Your task to perform on an android device: change the clock display to digital Image 0: 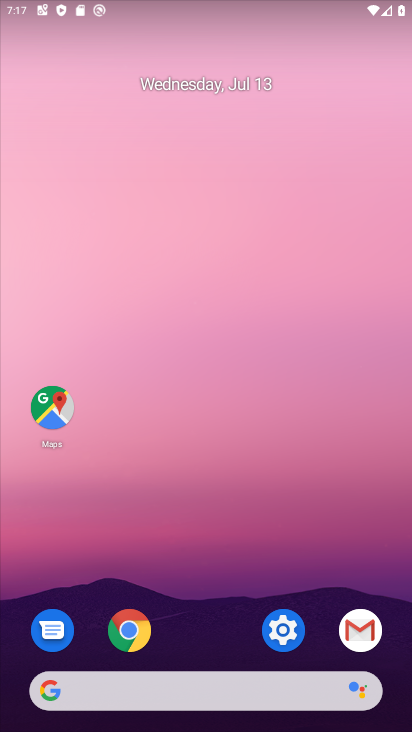
Step 0: press home button
Your task to perform on an android device: change the clock display to digital Image 1: 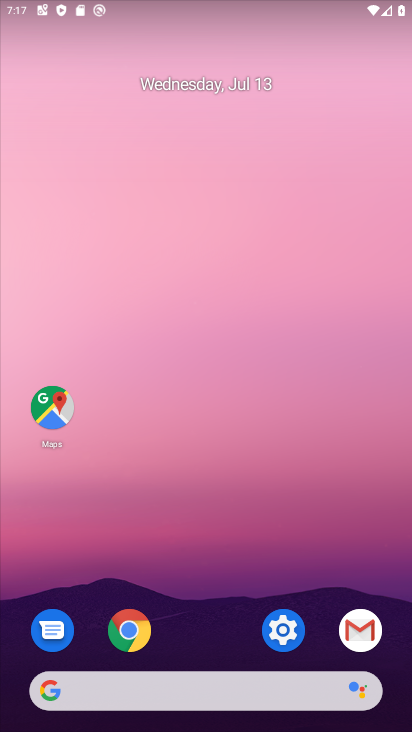
Step 1: drag from (158, 712) to (280, 364)
Your task to perform on an android device: change the clock display to digital Image 2: 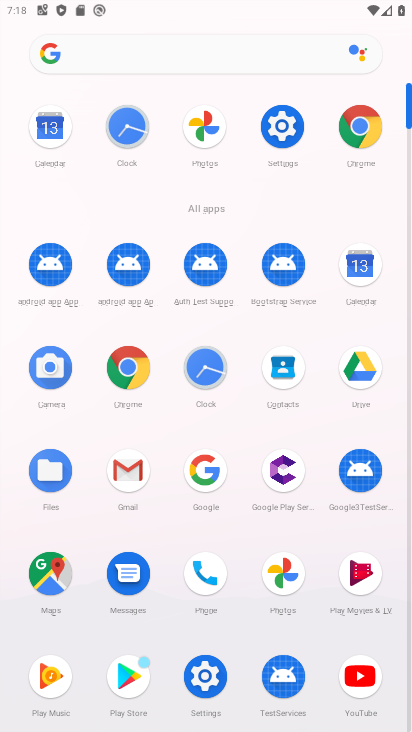
Step 2: click (203, 365)
Your task to perform on an android device: change the clock display to digital Image 3: 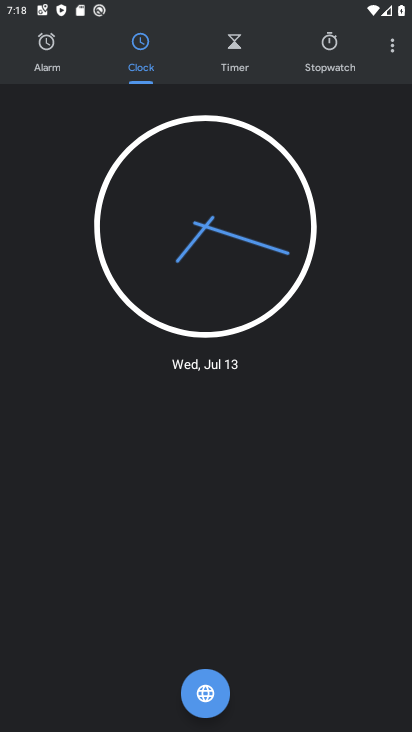
Step 3: click (386, 43)
Your task to perform on an android device: change the clock display to digital Image 4: 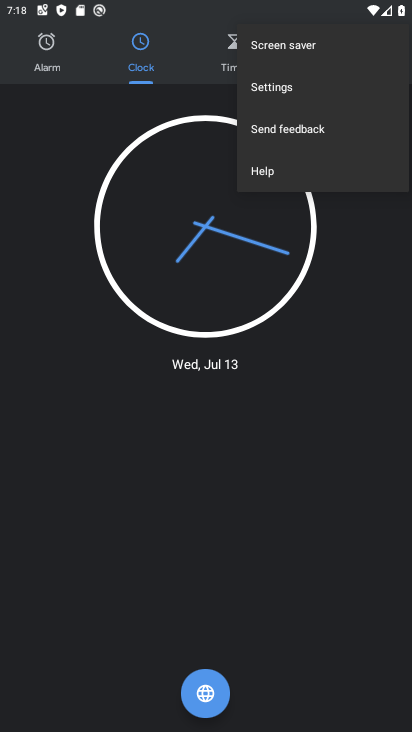
Step 4: click (286, 98)
Your task to perform on an android device: change the clock display to digital Image 5: 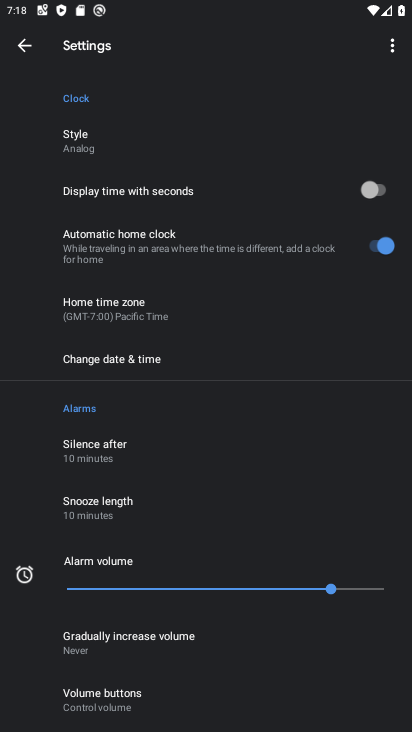
Step 5: click (132, 148)
Your task to perform on an android device: change the clock display to digital Image 6: 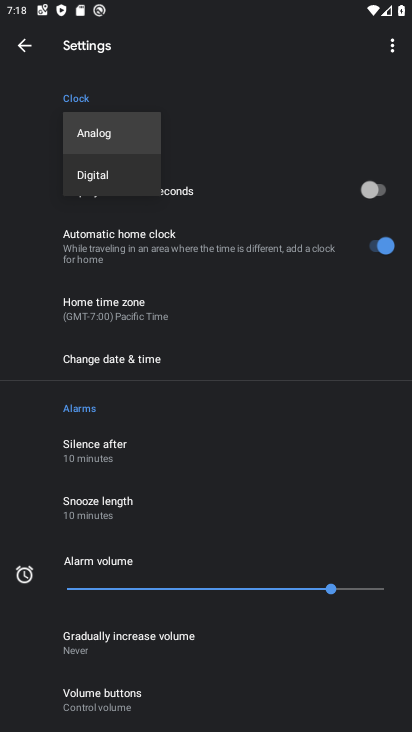
Step 6: click (102, 176)
Your task to perform on an android device: change the clock display to digital Image 7: 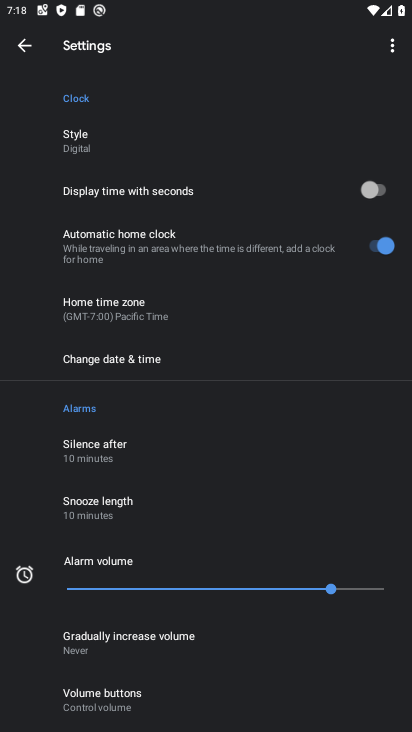
Step 7: task complete